Your task to perform on an android device: open the mobile data screen to see how much data has been used Image 0: 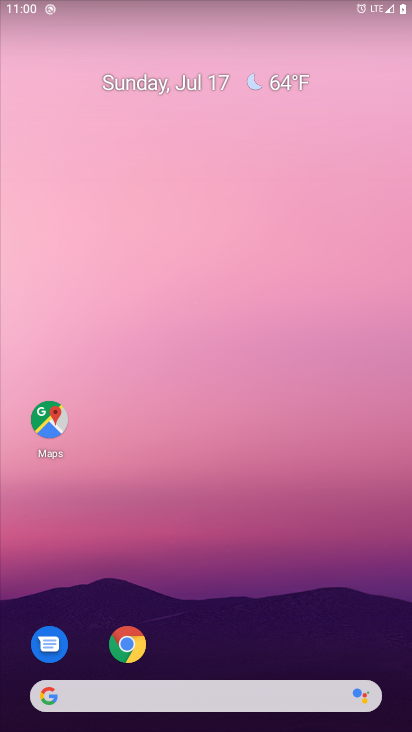
Step 0: press home button
Your task to perform on an android device: open the mobile data screen to see how much data has been used Image 1: 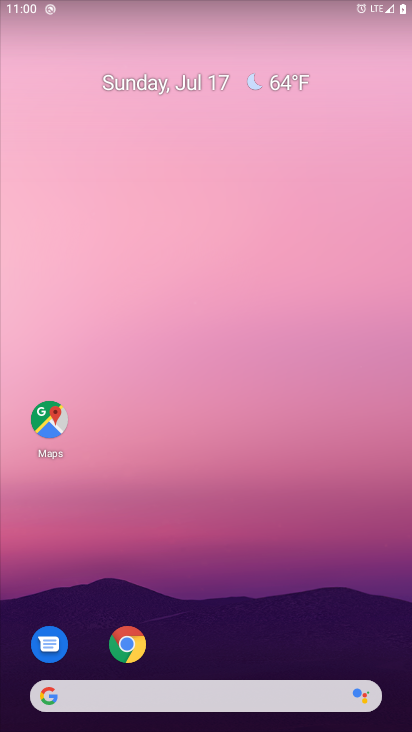
Step 1: drag from (265, 218) to (180, 3)
Your task to perform on an android device: open the mobile data screen to see how much data has been used Image 2: 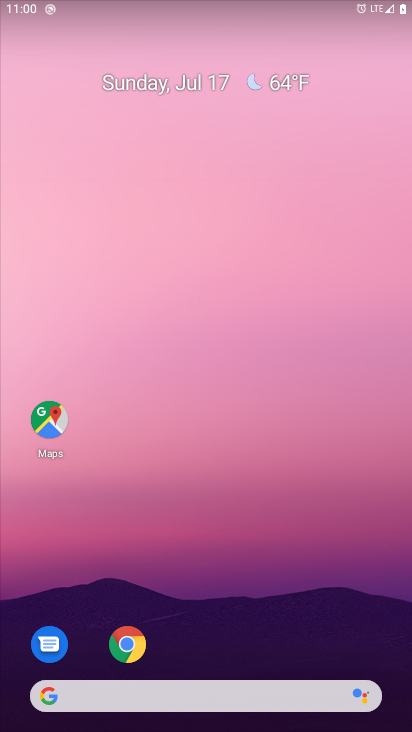
Step 2: drag from (257, 644) to (179, 28)
Your task to perform on an android device: open the mobile data screen to see how much data has been used Image 3: 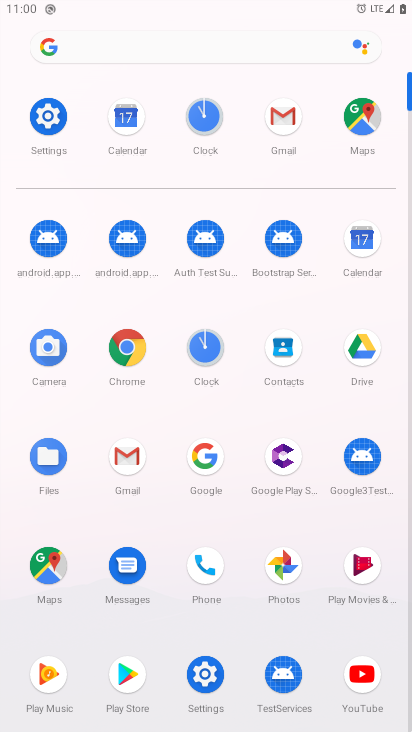
Step 3: click (48, 122)
Your task to perform on an android device: open the mobile data screen to see how much data has been used Image 4: 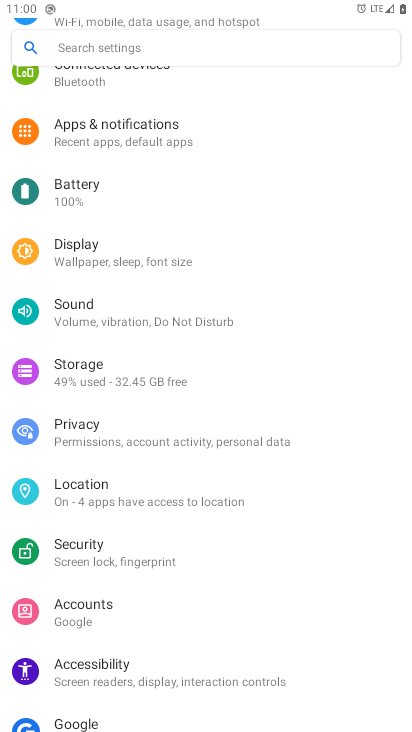
Step 4: drag from (176, 94) to (136, 567)
Your task to perform on an android device: open the mobile data screen to see how much data has been used Image 5: 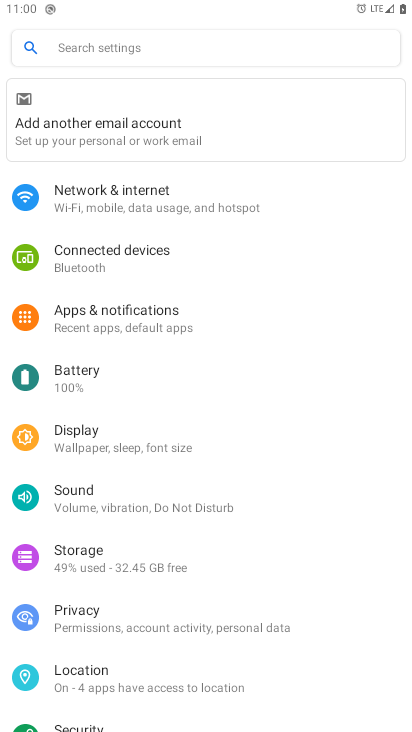
Step 5: click (118, 207)
Your task to perform on an android device: open the mobile data screen to see how much data has been used Image 6: 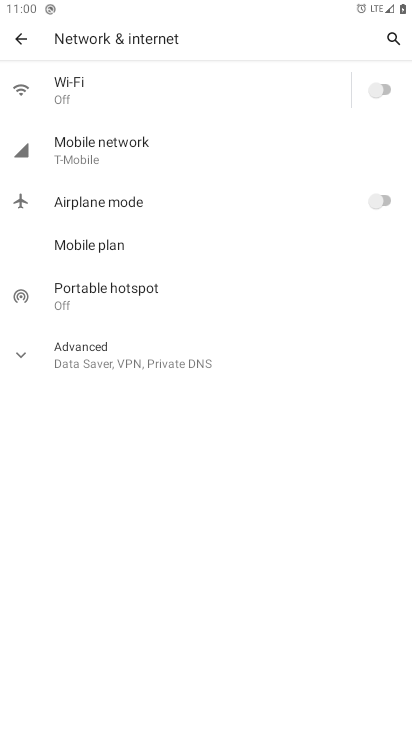
Step 6: click (98, 150)
Your task to perform on an android device: open the mobile data screen to see how much data has been used Image 7: 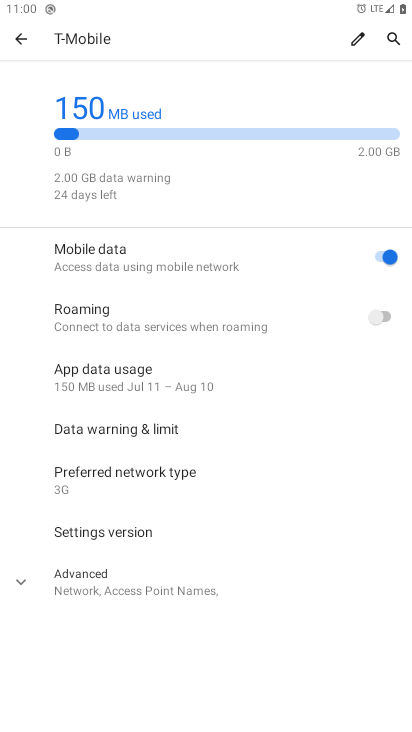
Step 7: task complete